Your task to perform on an android device: turn pop-ups off in chrome Image 0: 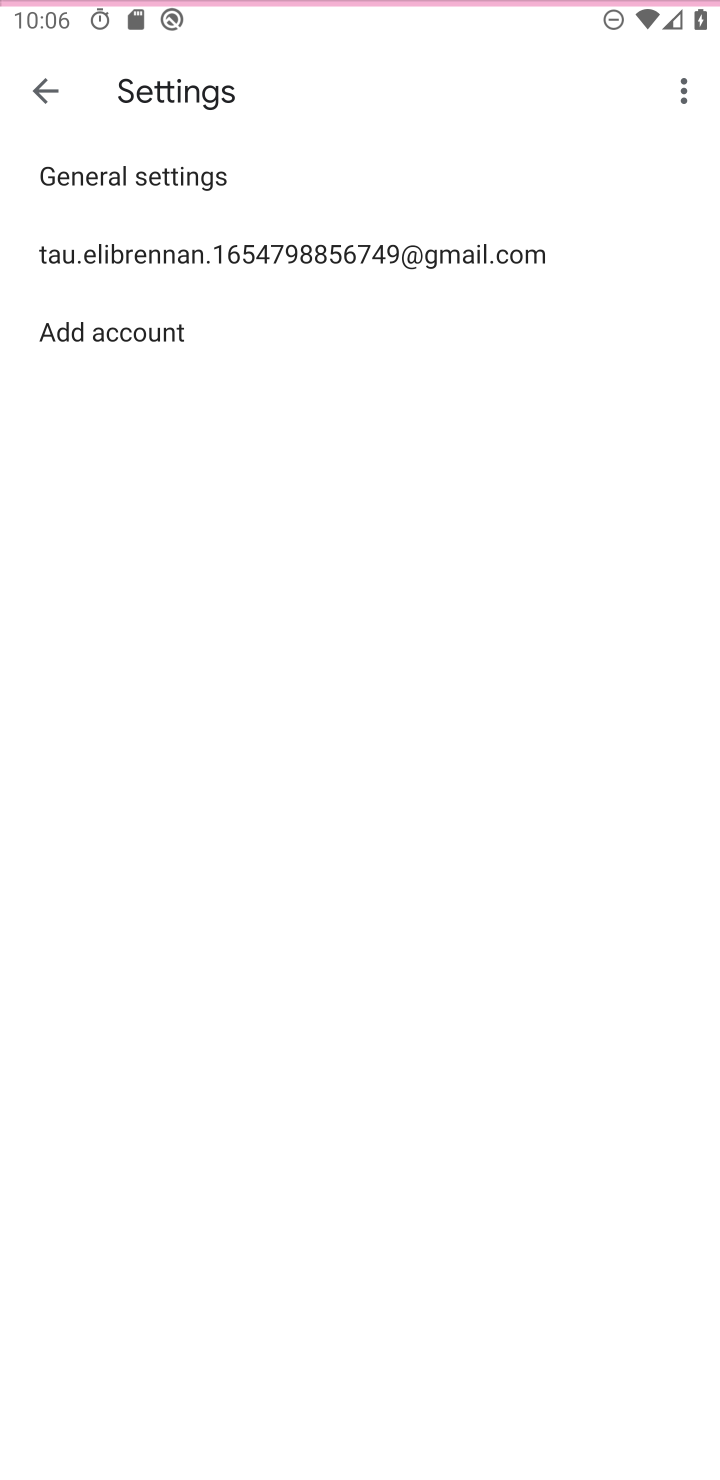
Step 0: press home button
Your task to perform on an android device: turn pop-ups off in chrome Image 1: 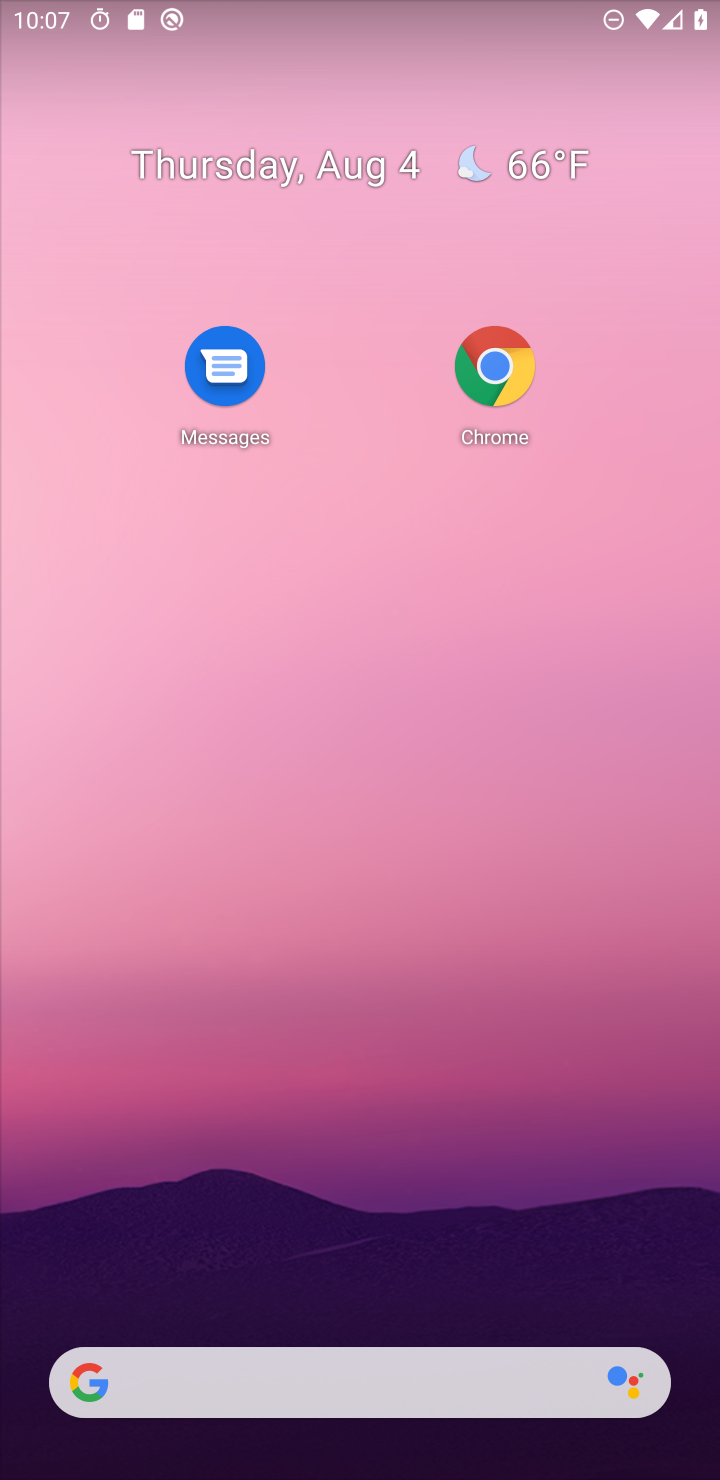
Step 1: click (491, 394)
Your task to perform on an android device: turn pop-ups off in chrome Image 2: 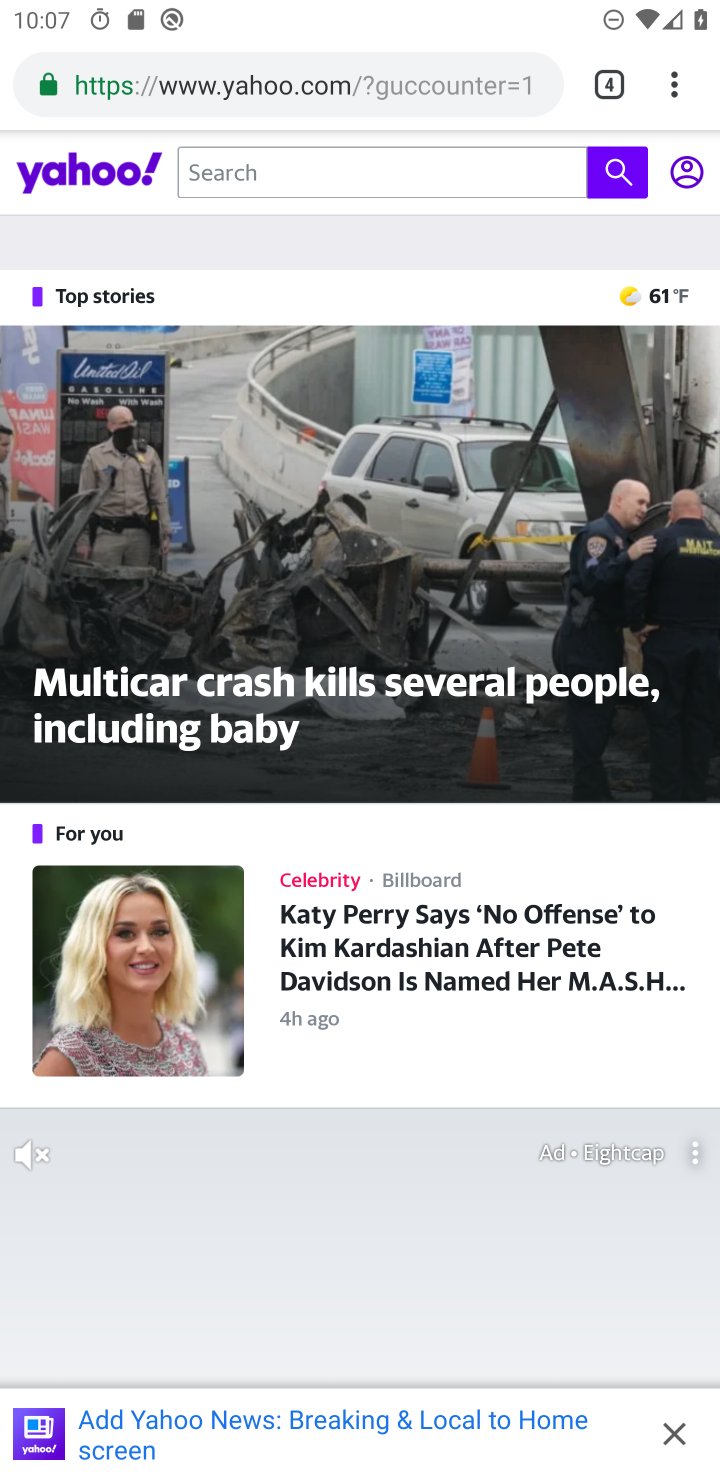
Step 2: click (680, 75)
Your task to perform on an android device: turn pop-ups off in chrome Image 3: 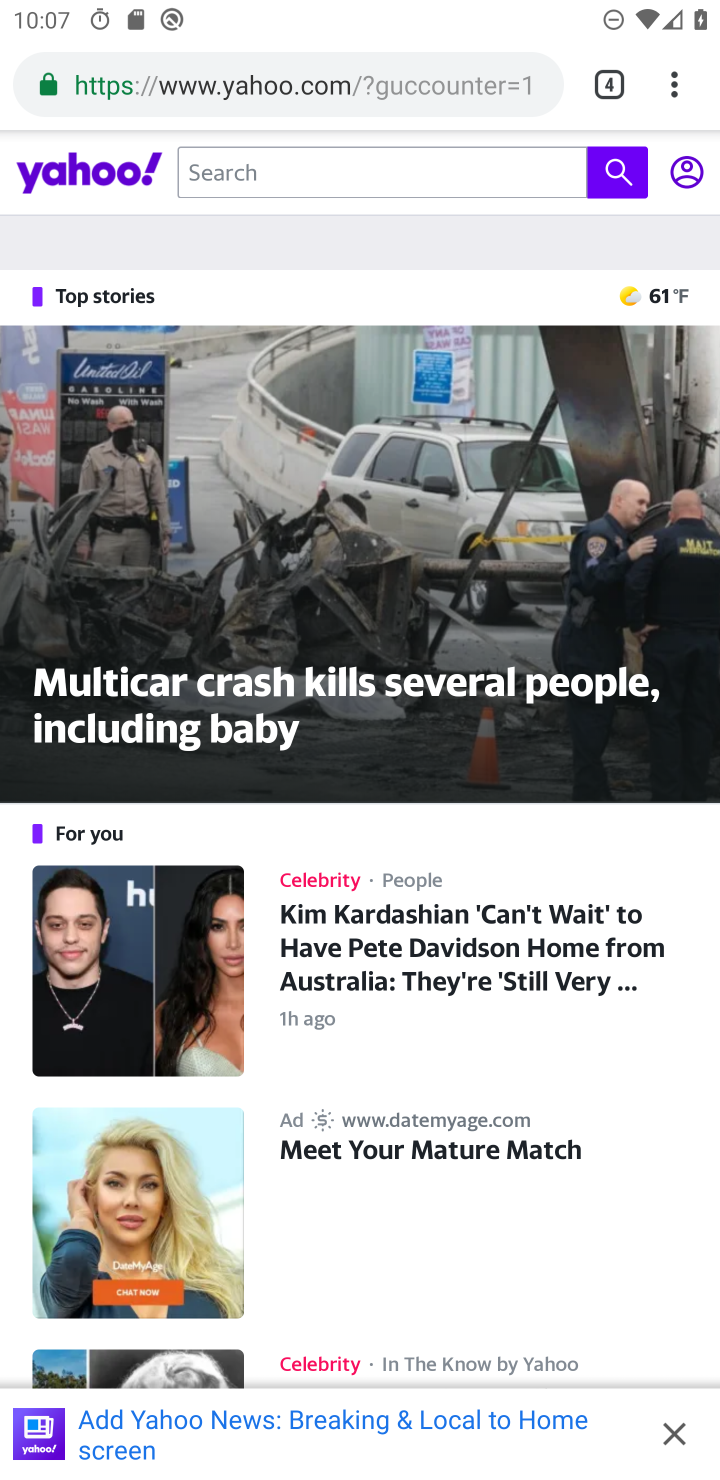
Step 3: click (675, 91)
Your task to perform on an android device: turn pop-ups off in chrome Image 4: 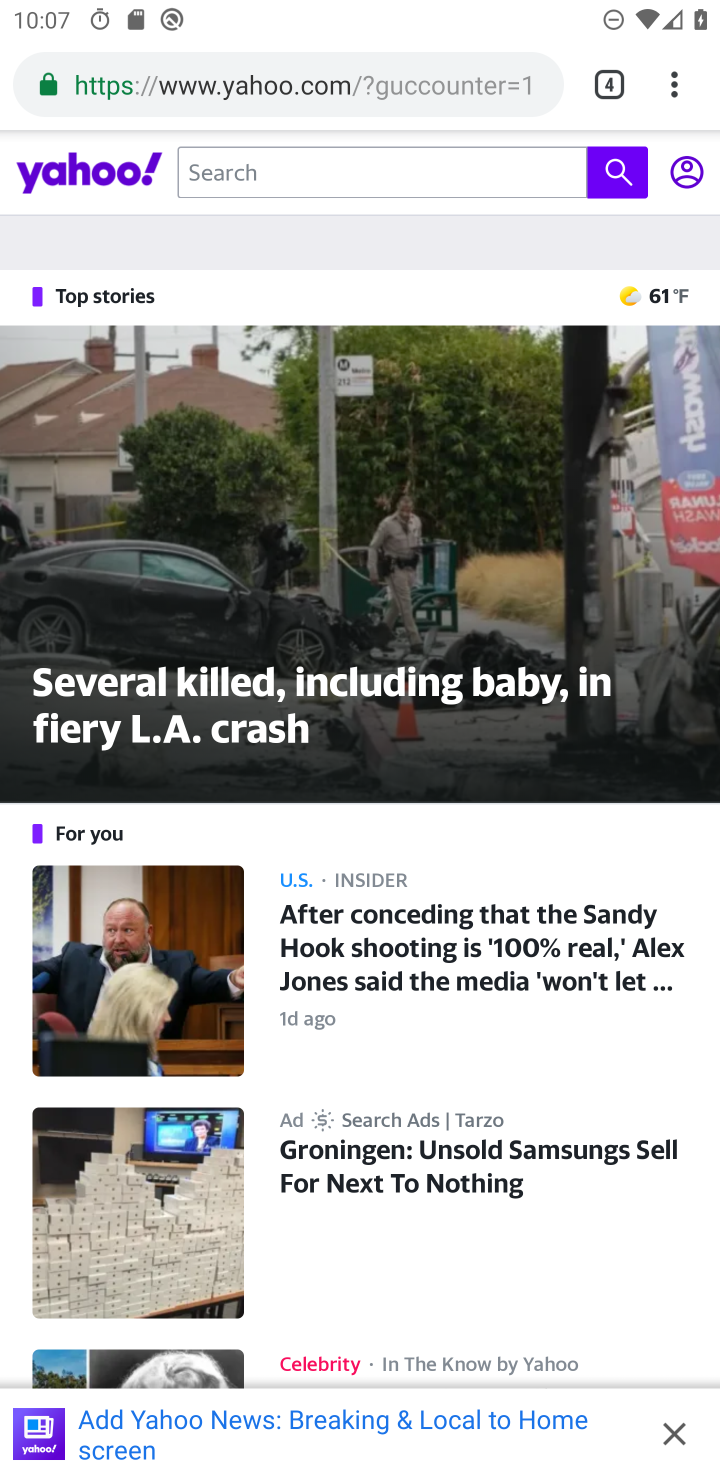
Step 4: click (681, 67)
Your task to perform on an android device: turn pop-ups off in chrome Image 5: 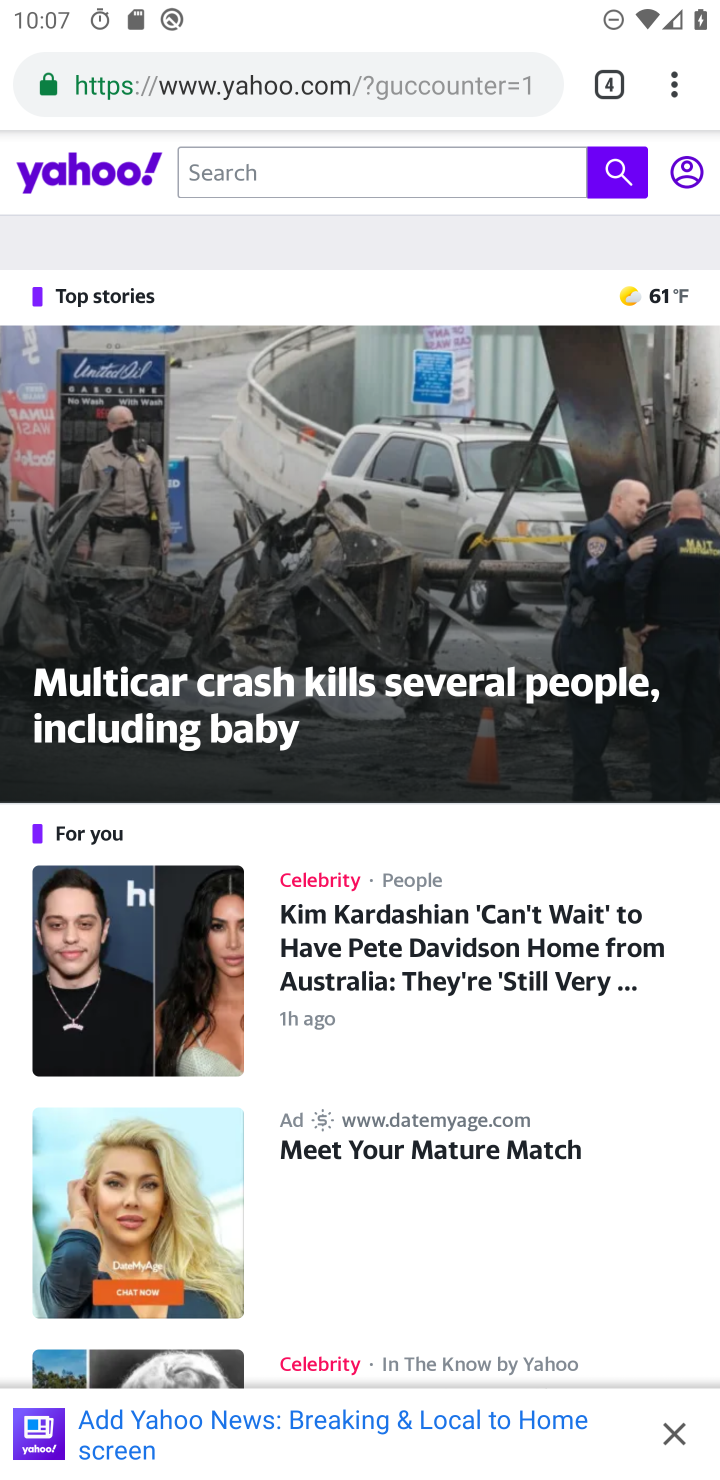
Step 5: click (670, 80)
Your task to perform on an android device: turn pop-ups off in chrome Image 6: 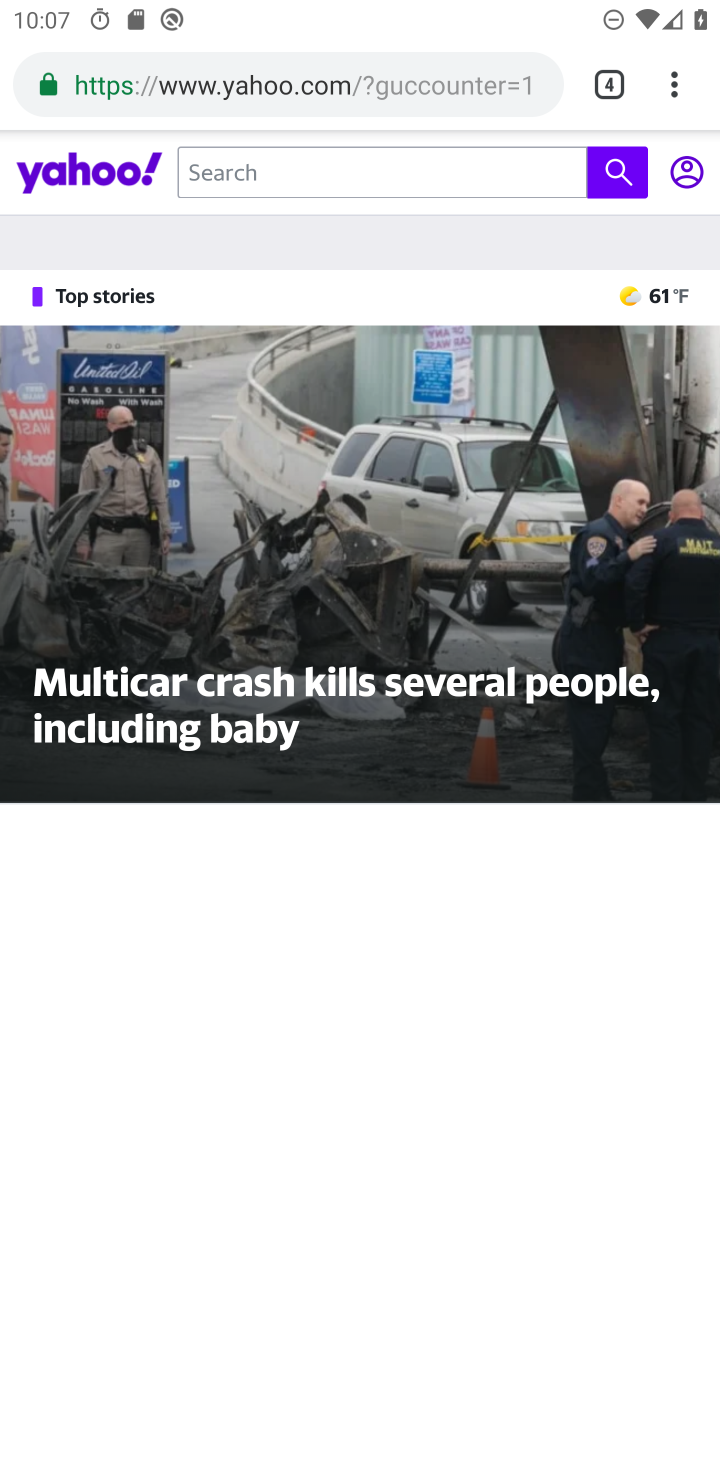
Step 6: click (666, 103)
Your task to perform on an android device: turn pop-ups off in chrome Image 7: 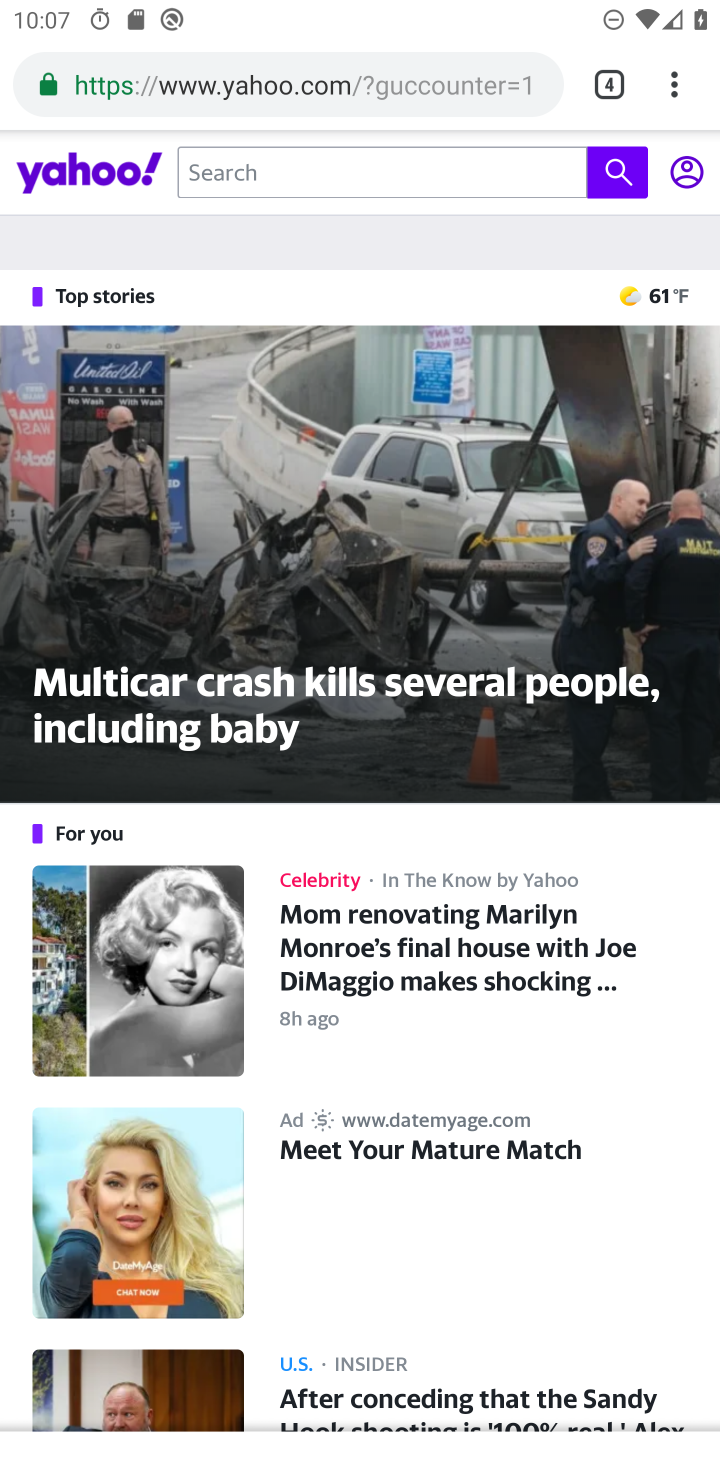
Step 7: click (666, 103)
Your task to perform on an android device: turn pop-ups off in chrome Image 8: 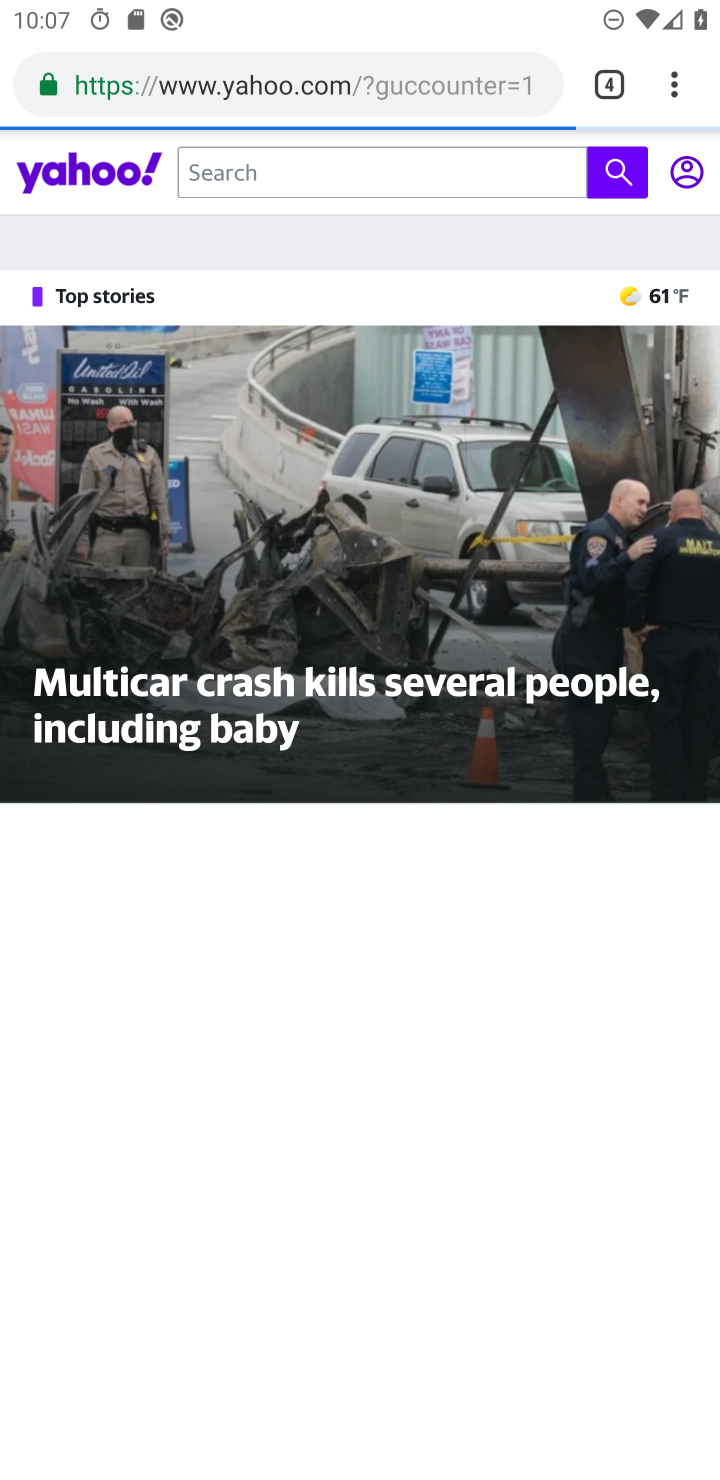
Step 8: click (669, 113)
Your task to perform on an android device: turn pop-ups off in chrome Image 9: 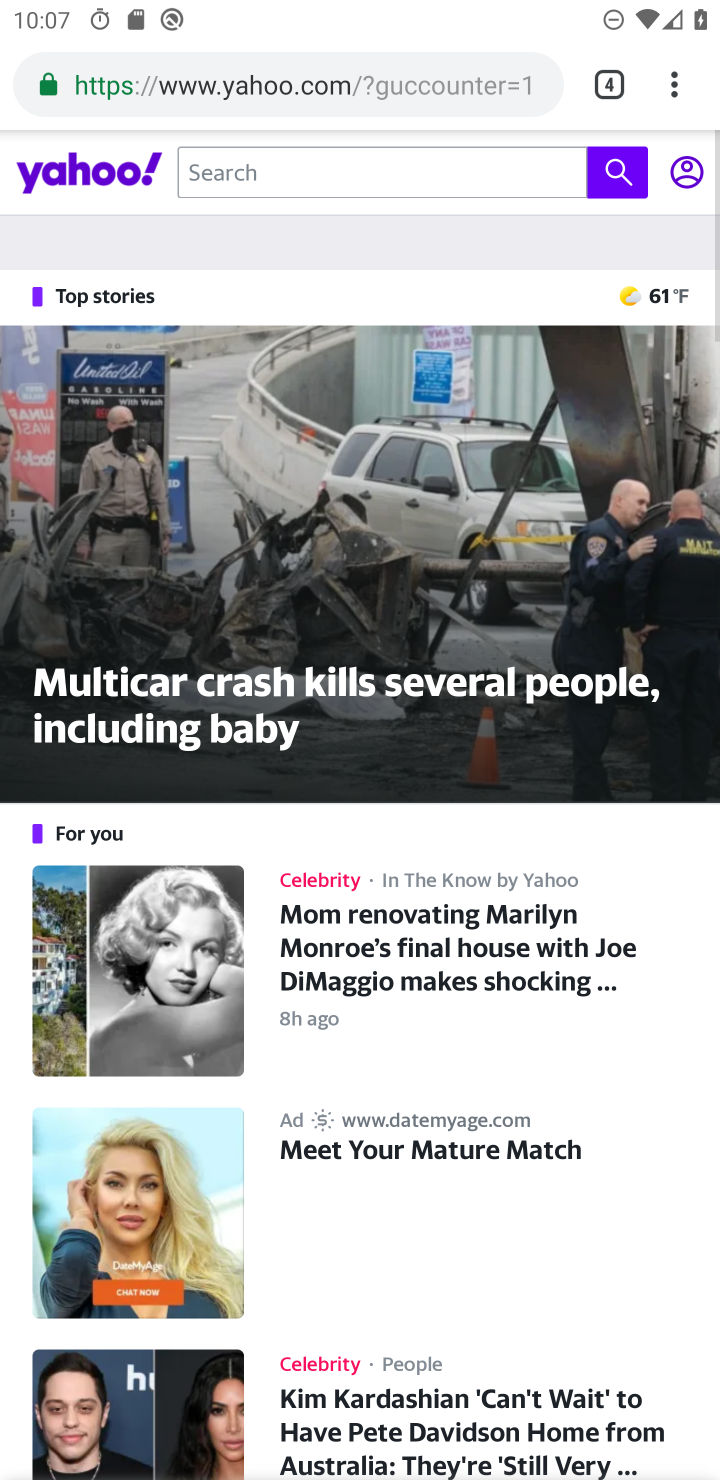
Step 9: click (678, 107)
Your task to perform on an android device: turn pop-ups off in chrome Image 10: 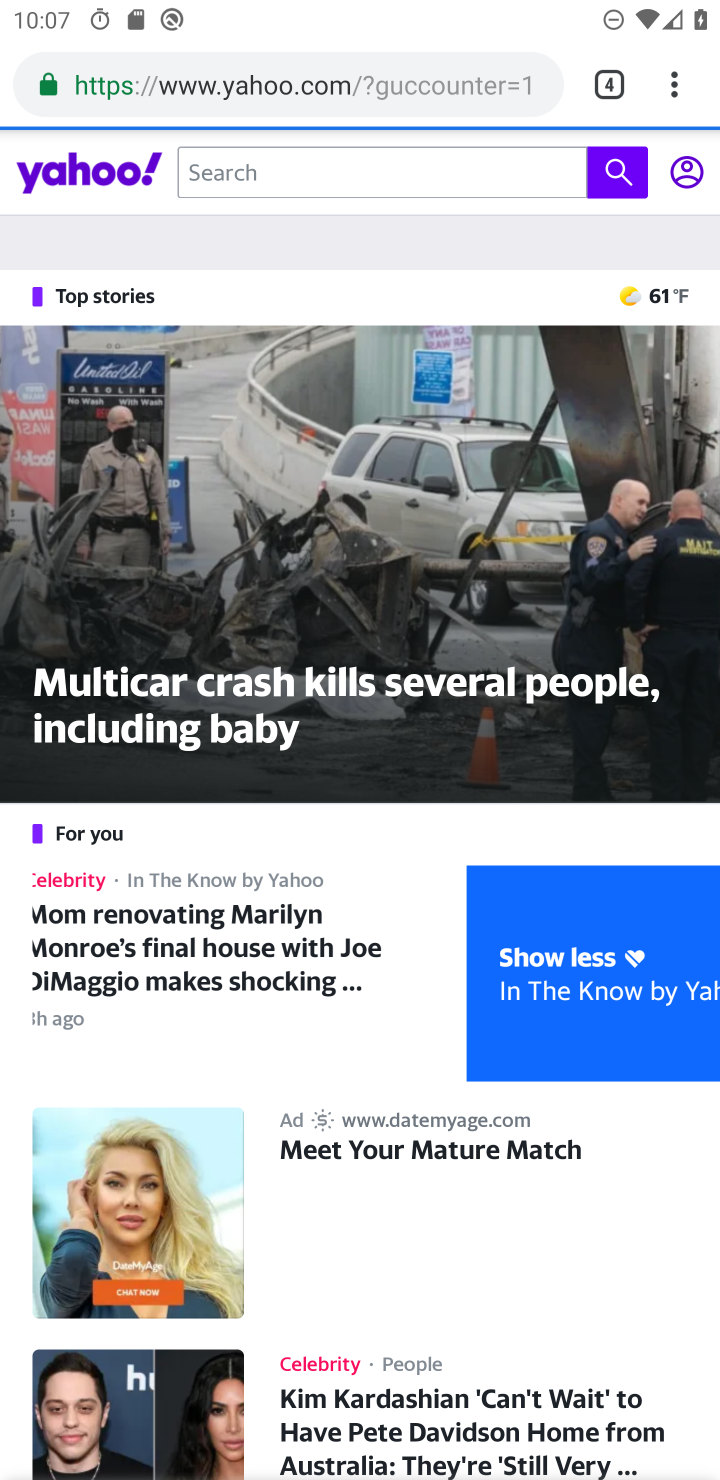
Step 10: click (658, 110)
Your task to perform on an android device: turn pop-ups off in chrome Image 11: 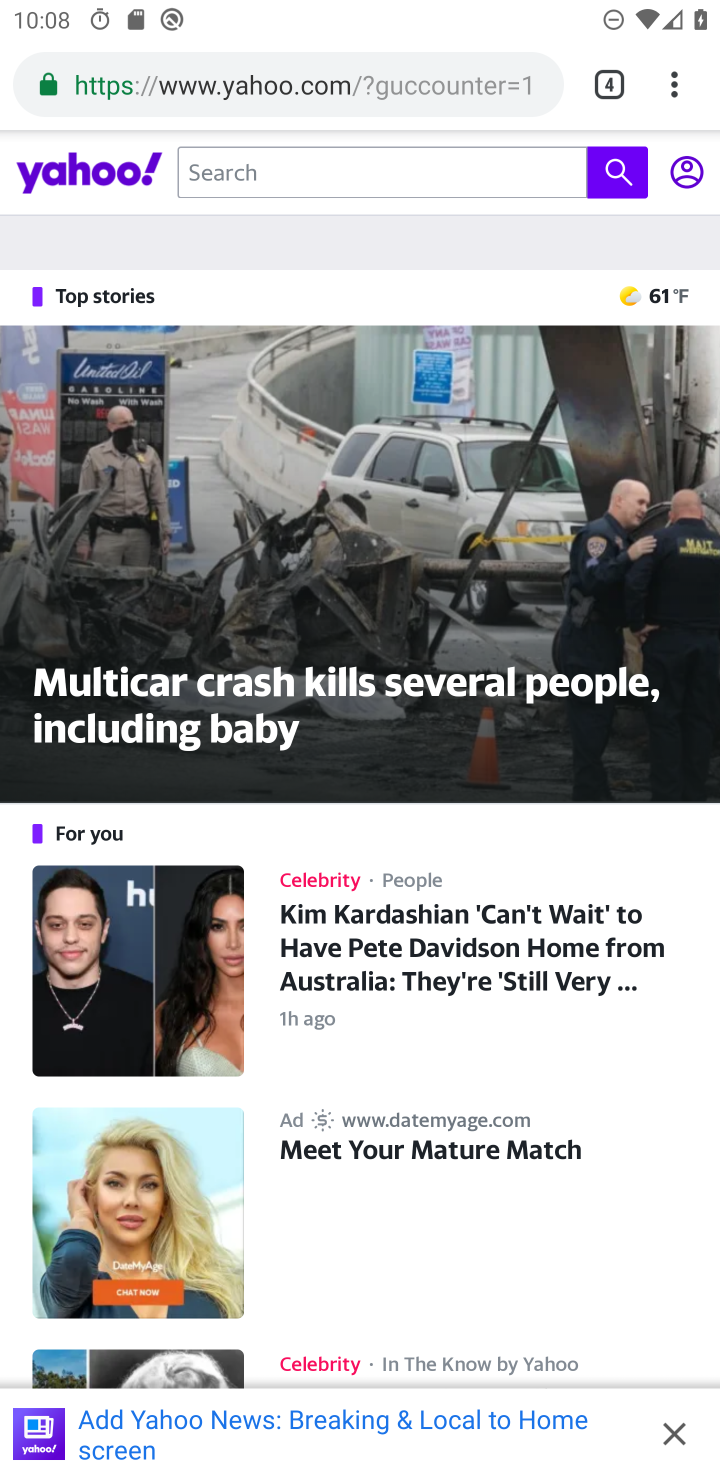
Step 11: click (680, 89)
Your task to perform on an android device: turn pop-ups off in chrome Image 12: 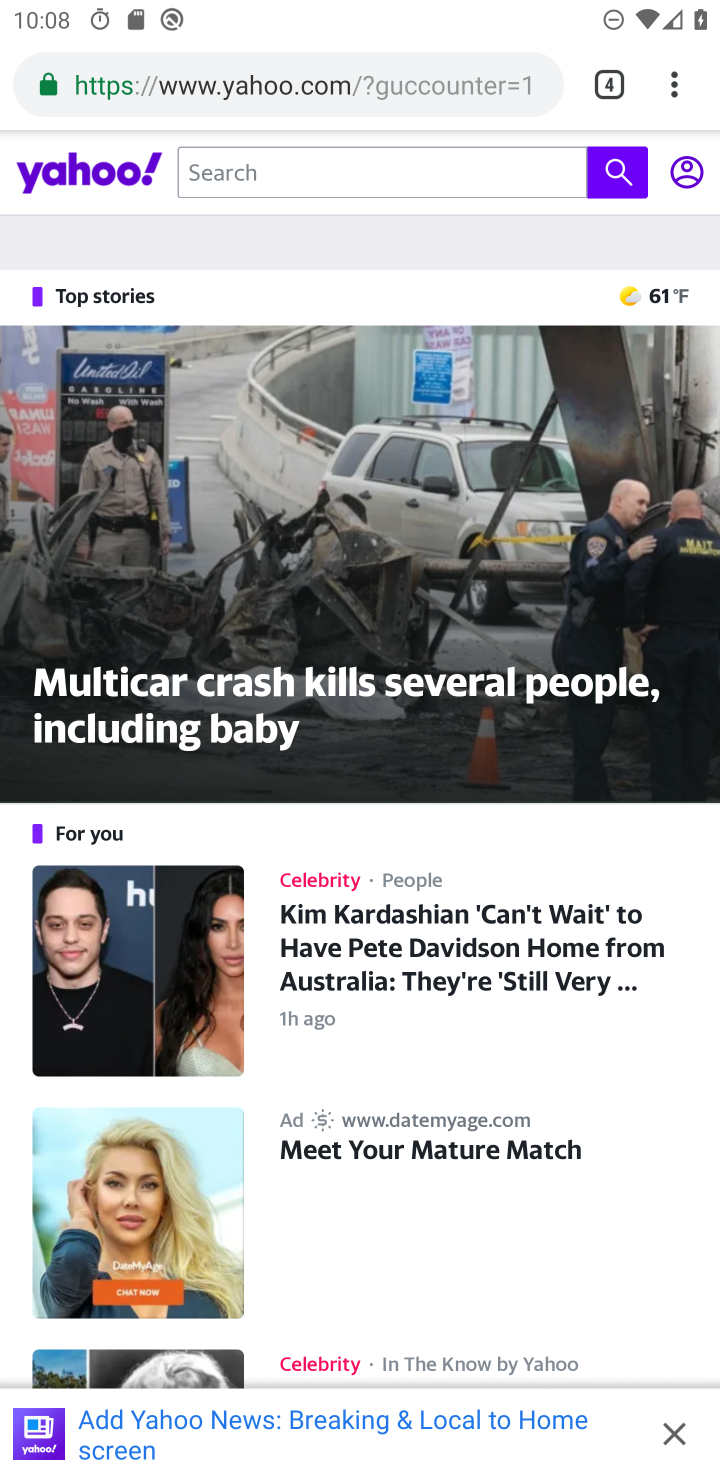
Step 12: click (673, 77)
Your task to perform on an android device: turn pop-ups off in chrome Image 13: 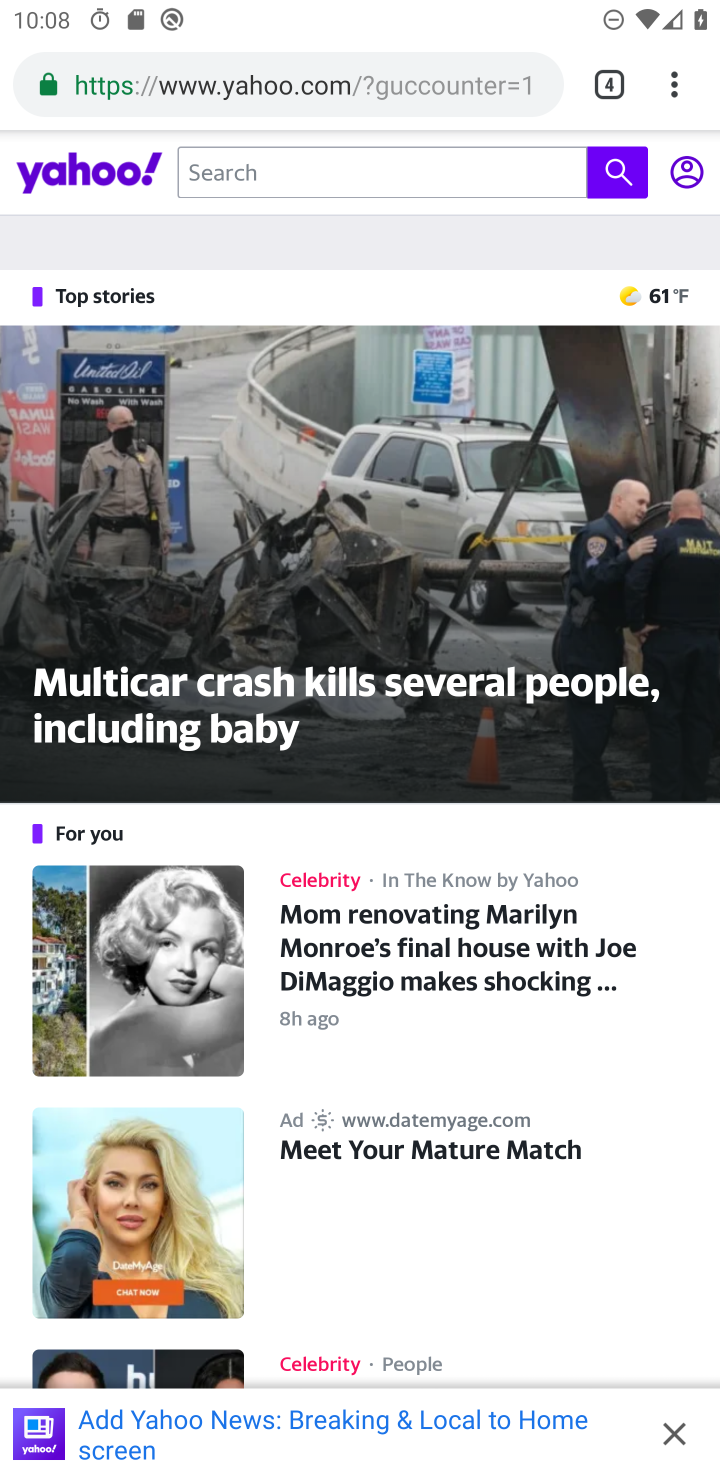
Step 13: click (677, 81)
Your task to perform on an android device: turn pop-ups off in chrome Image 14: 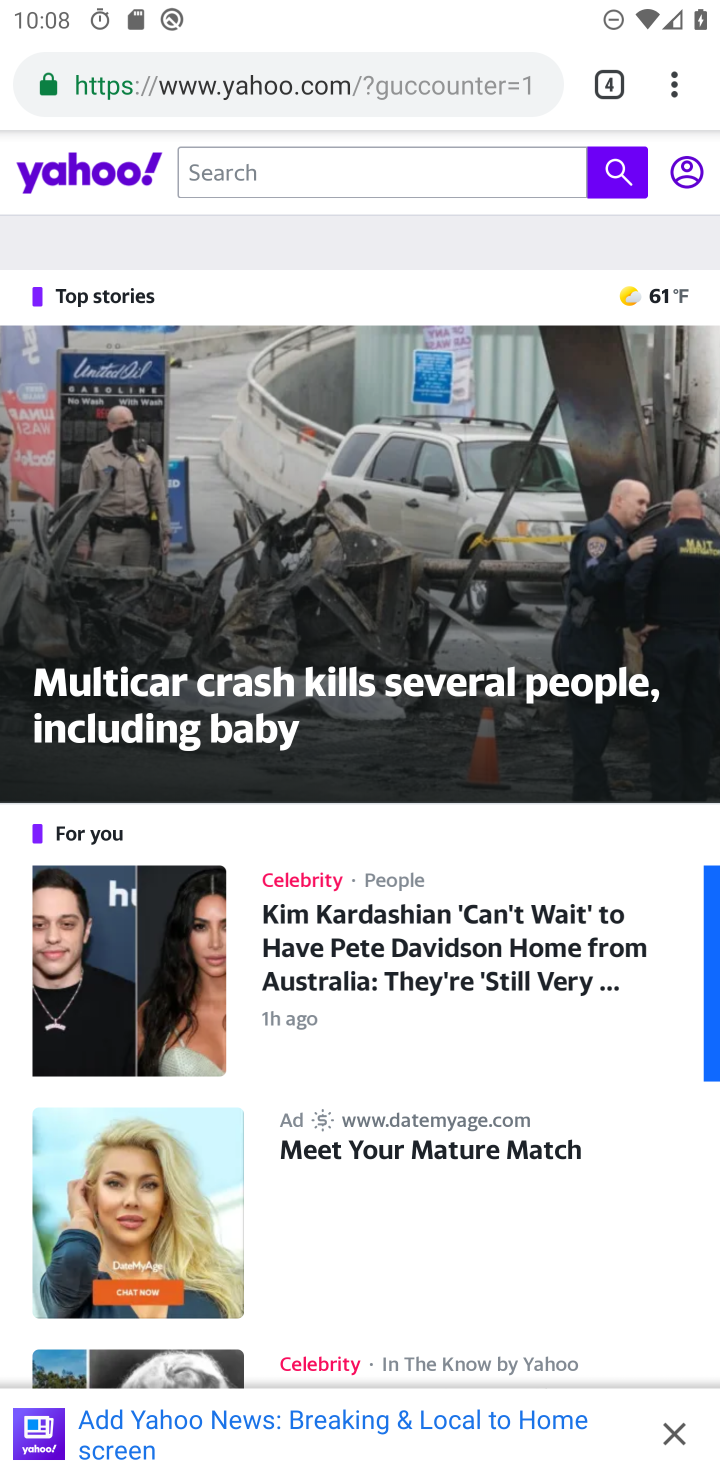
Step 14: click (662, 84)
Your task to perform on an android device: turn pop-ups off in chrome Image 15: 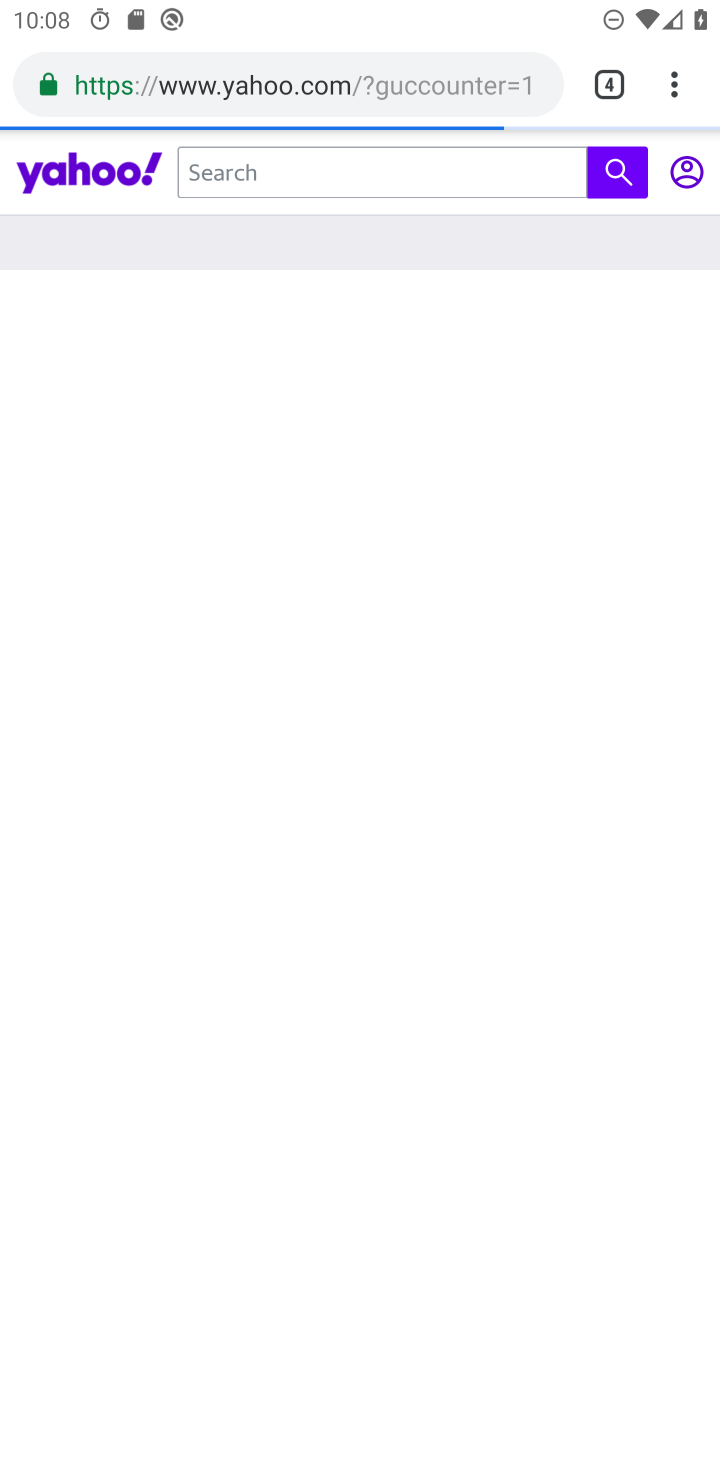
Step 15: click (677, 97)
Your task to perform on an android device: turn pop-ups off in chrome Image 16: 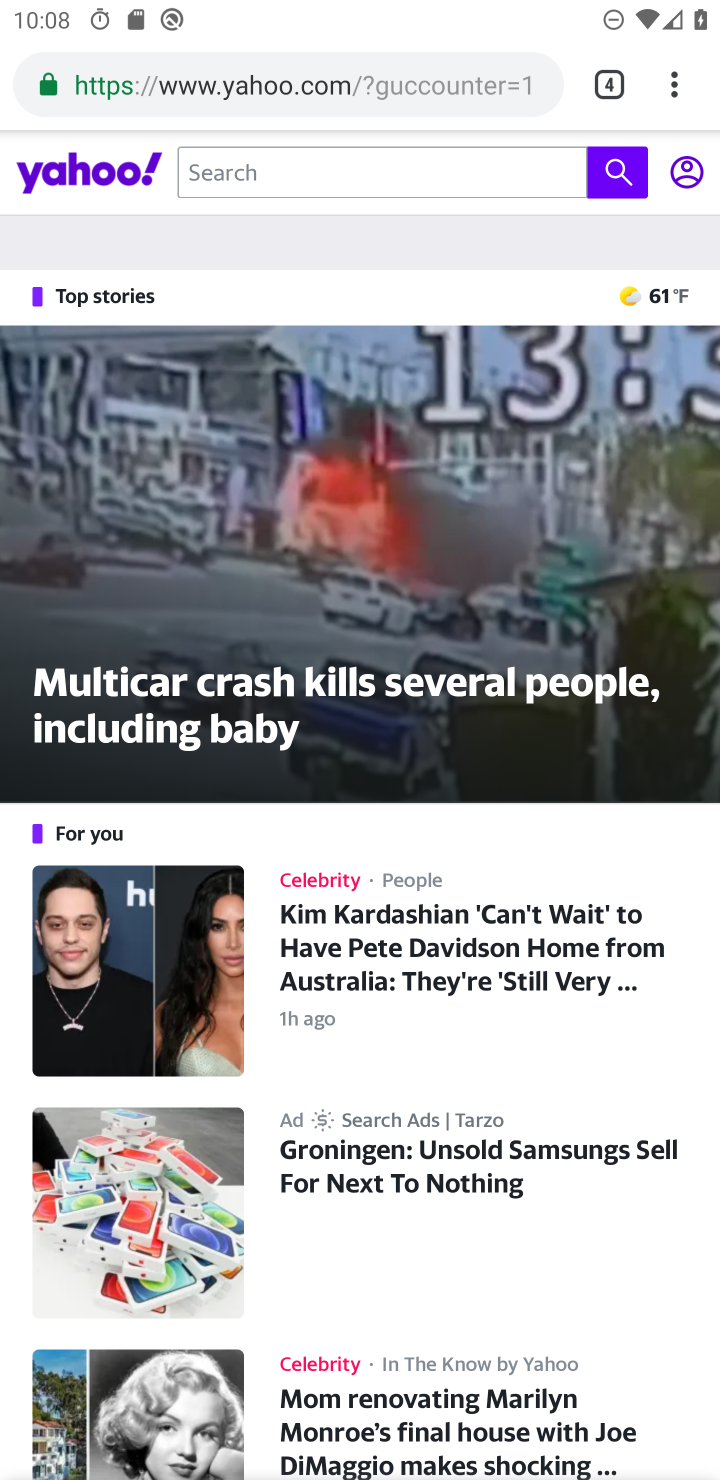
Step 16: click (679, 81)
Your task to perform on an android device: turn pop-ups off in chrome Image 17: 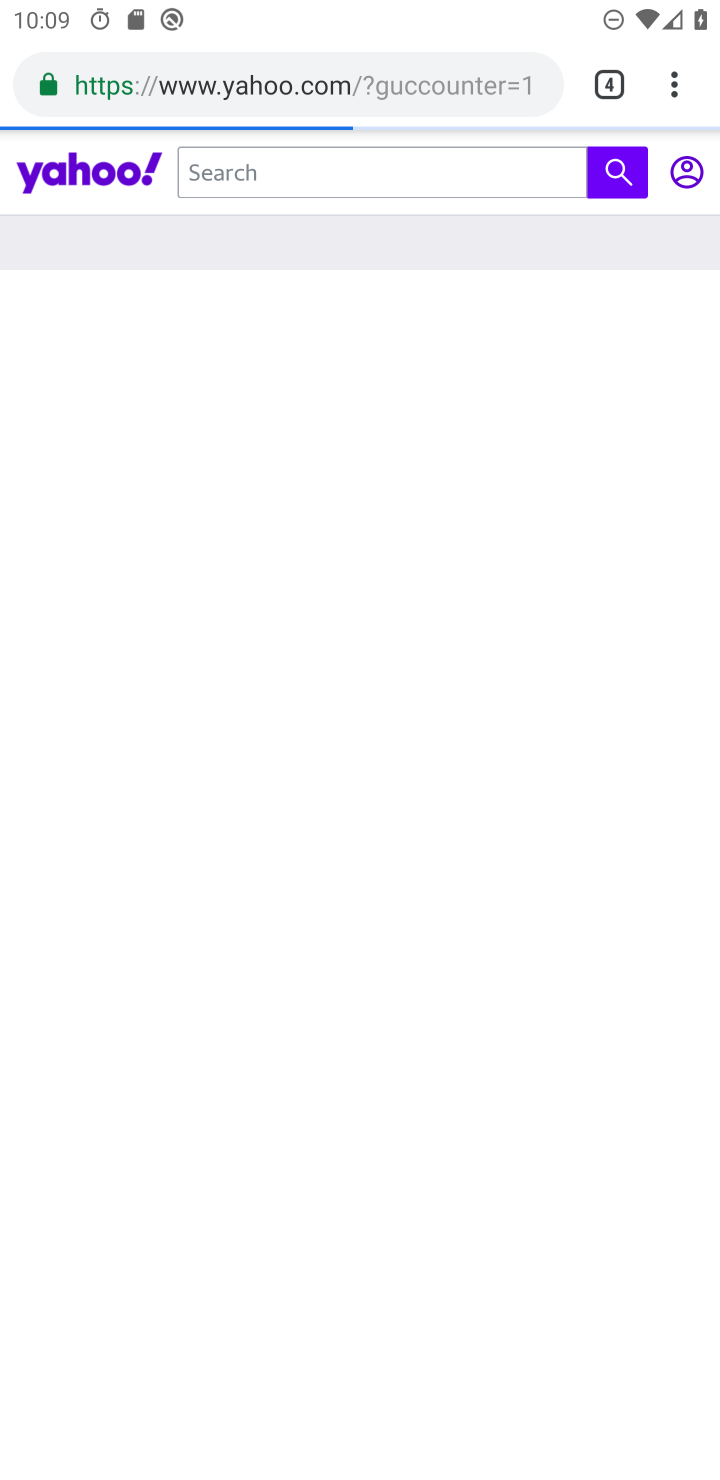
Step 17: click (677, 66)
Your task to perform on an android device: turn pop-ups off in chrome Image 18: 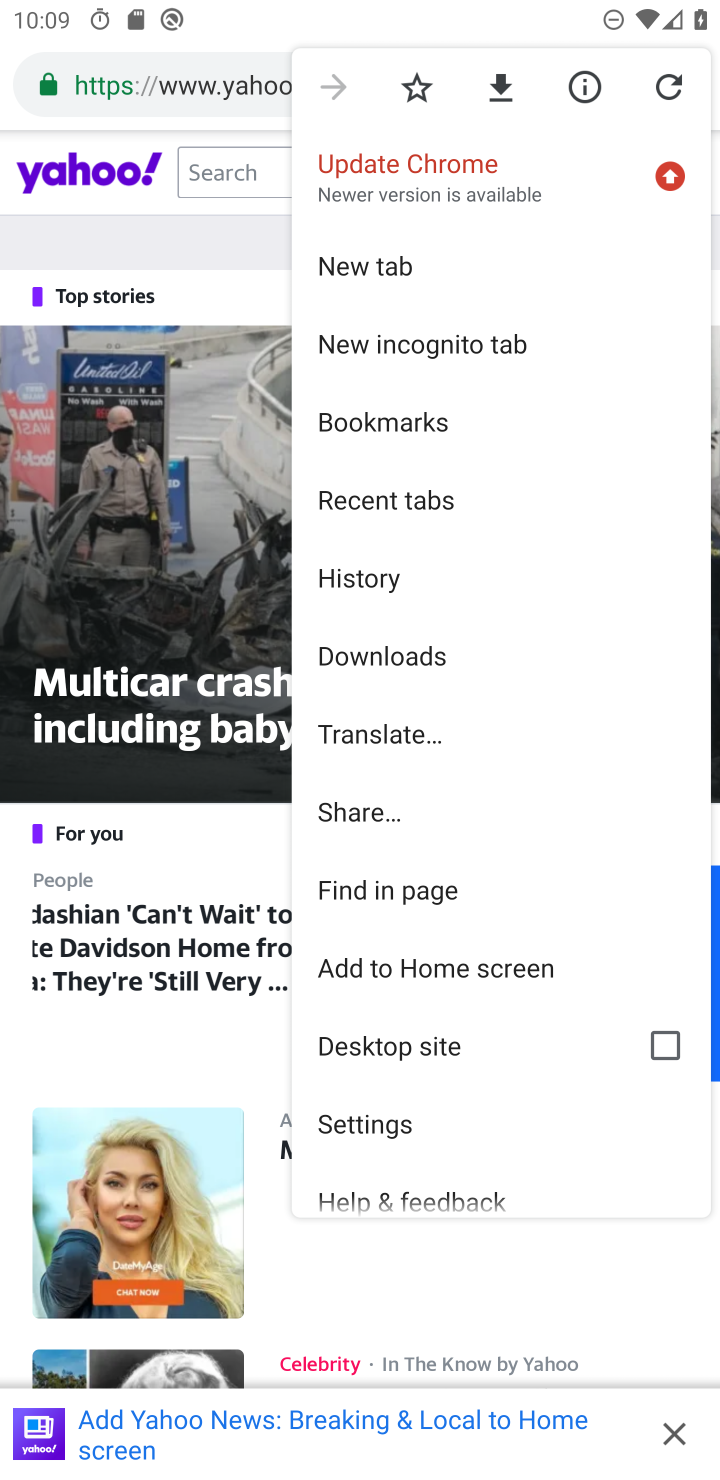
Step 18: click (361, 1118)
Your task to perform on an android device: turn pop-ups off in chrome Image 19: 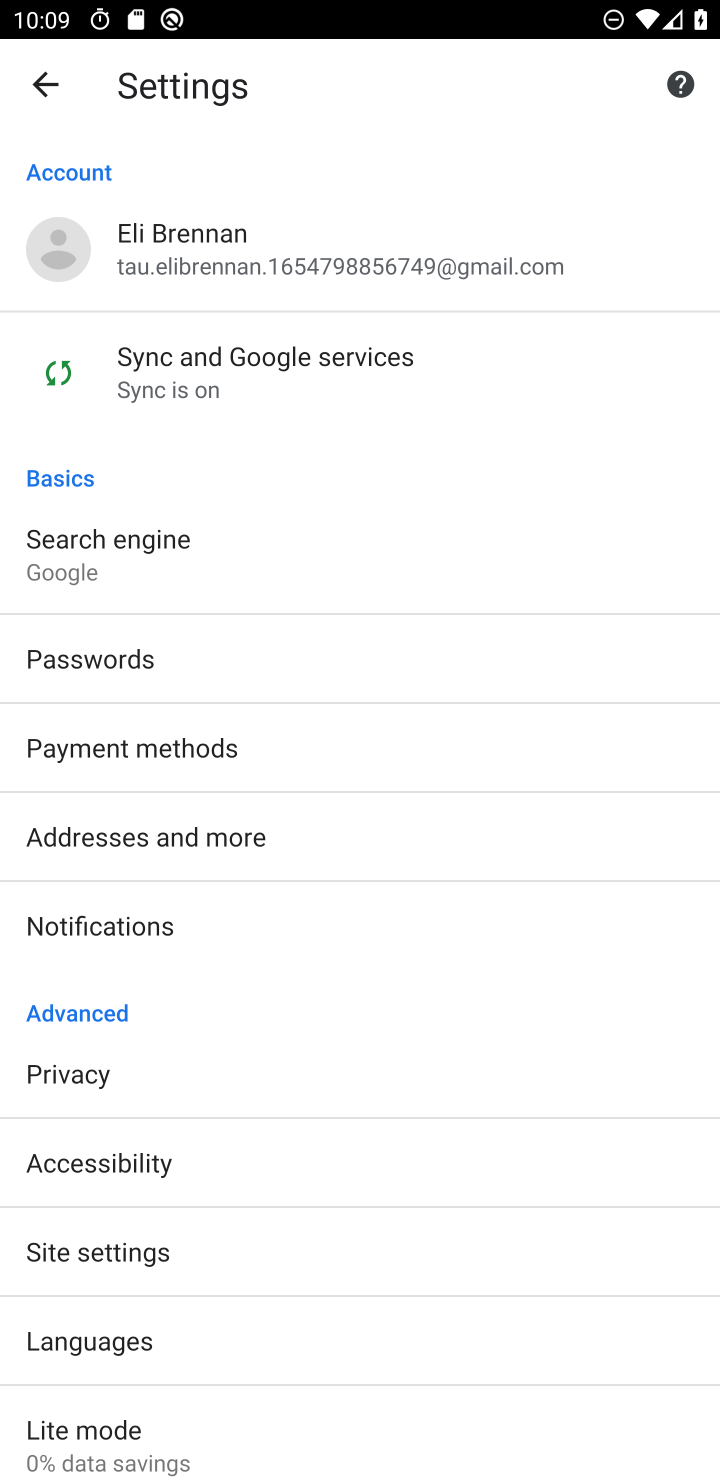
Step 19: click (148, 1260)
Your task to perform on an android device: turn pop-ups off in chrome Image 20: 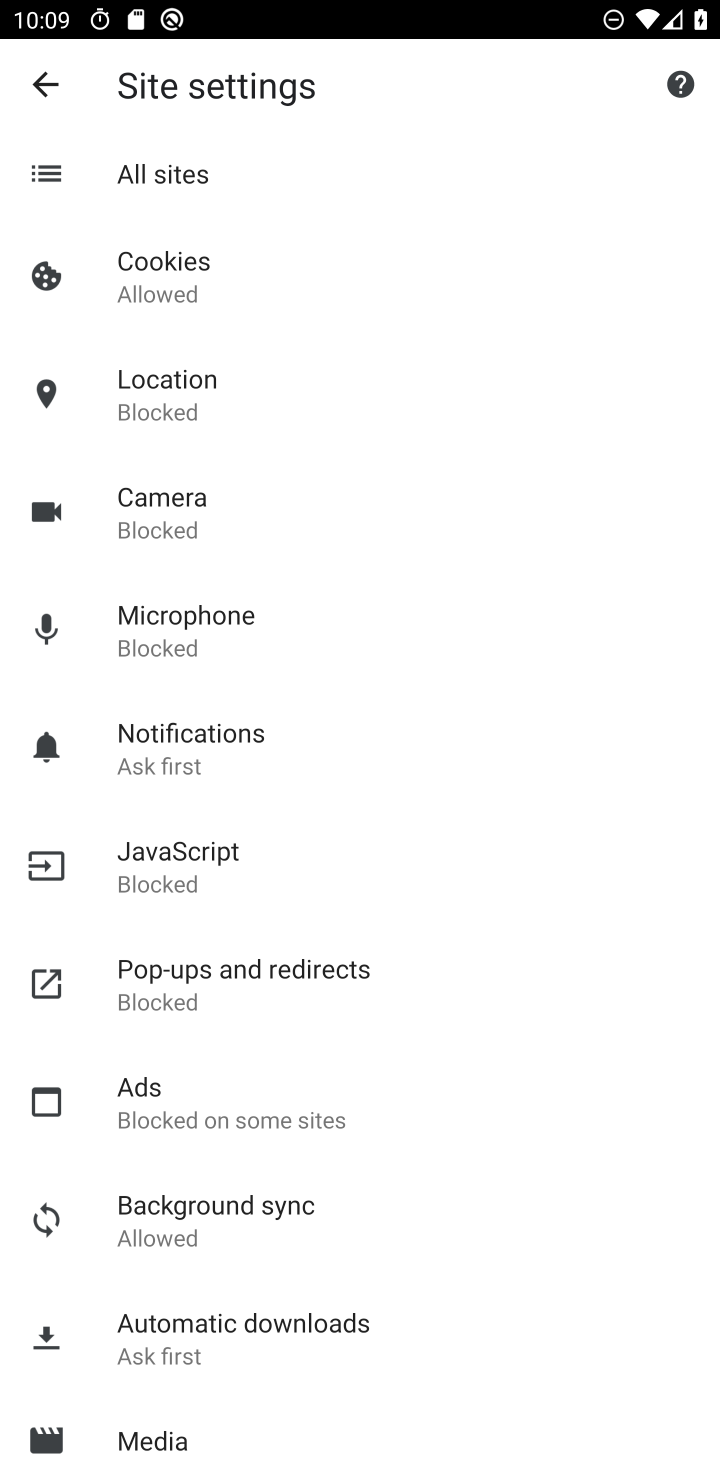
Step 20: click (218, 984)
Your task to perform on an android device: turn pop-ups off in chrome Image 21: 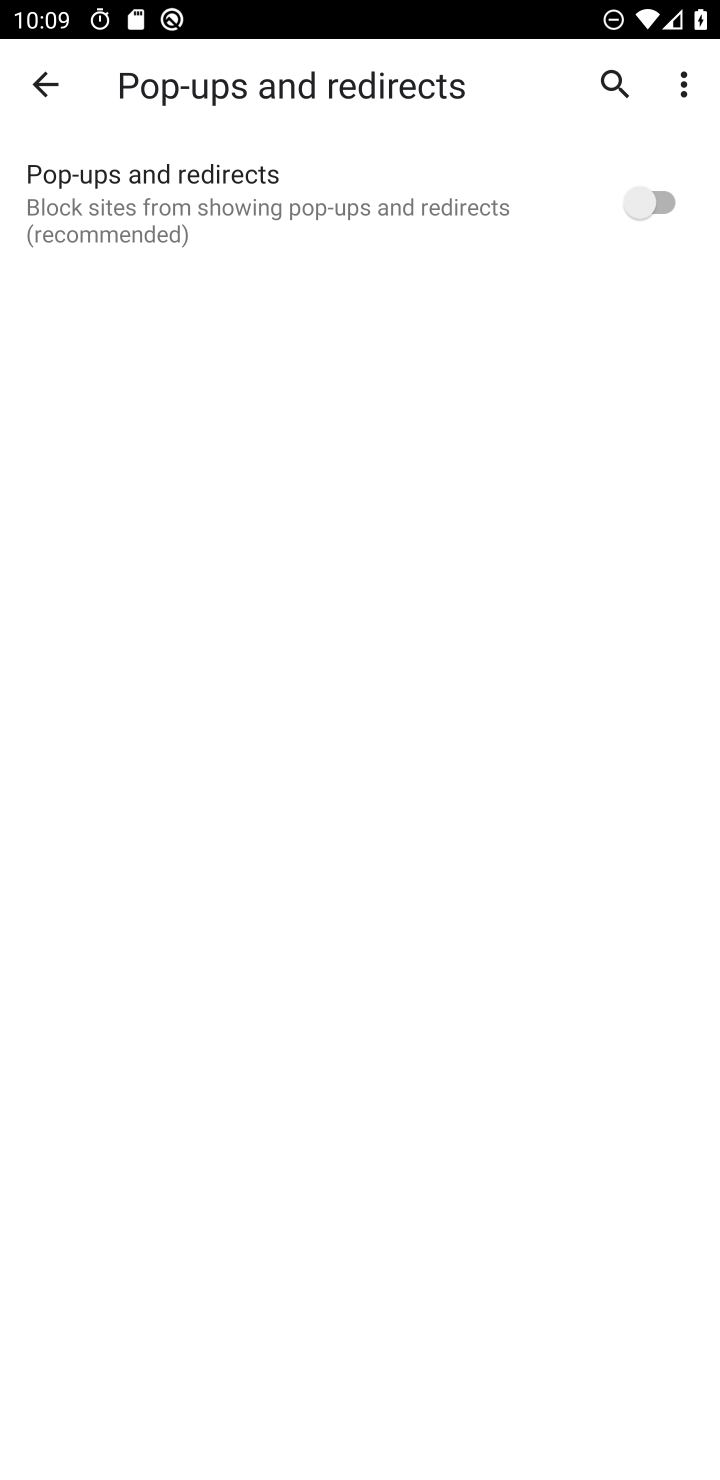
Step 21: click (641, 202)
Your task to perform on an android device: turn pop-ups off in chrome Image 22: 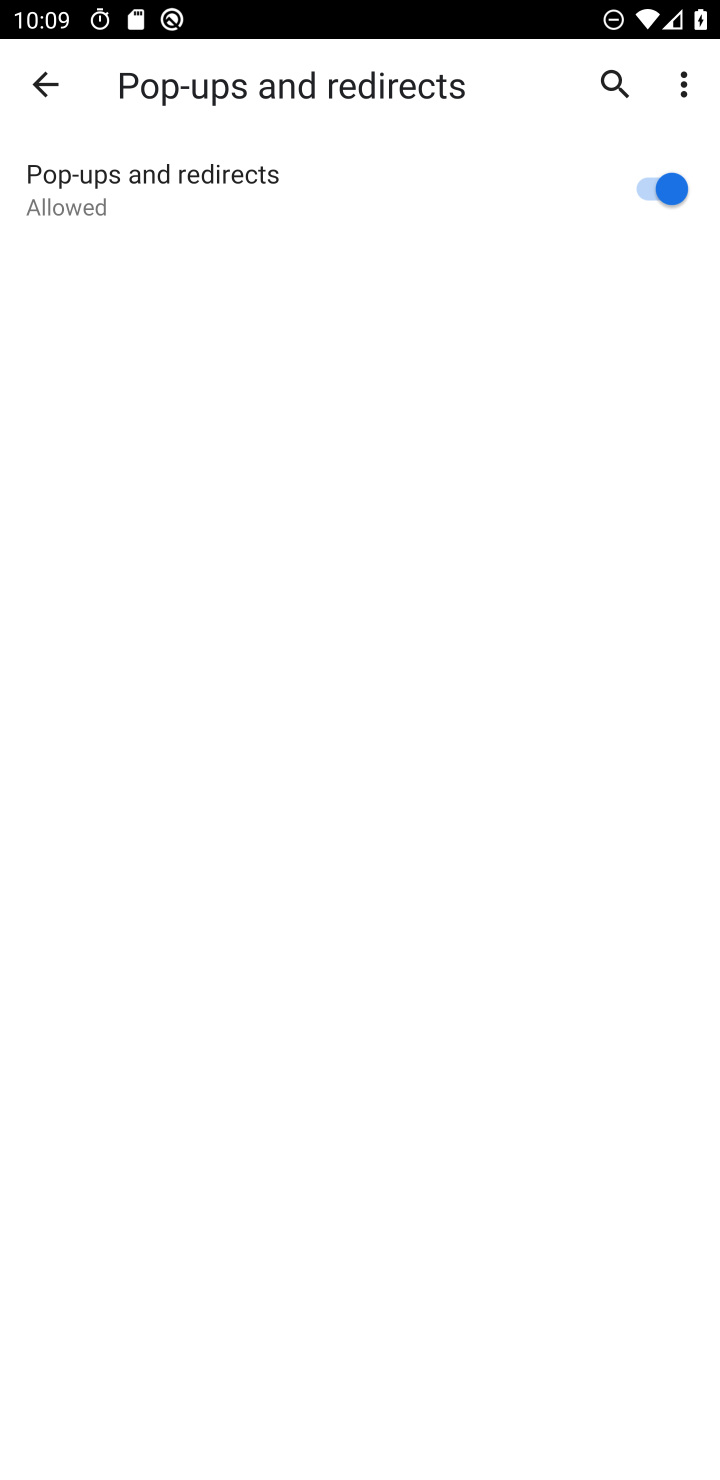
Step 22: click (641, 202)
Your task to perform on an android device: turn pop-ups off in chrome Image 23: 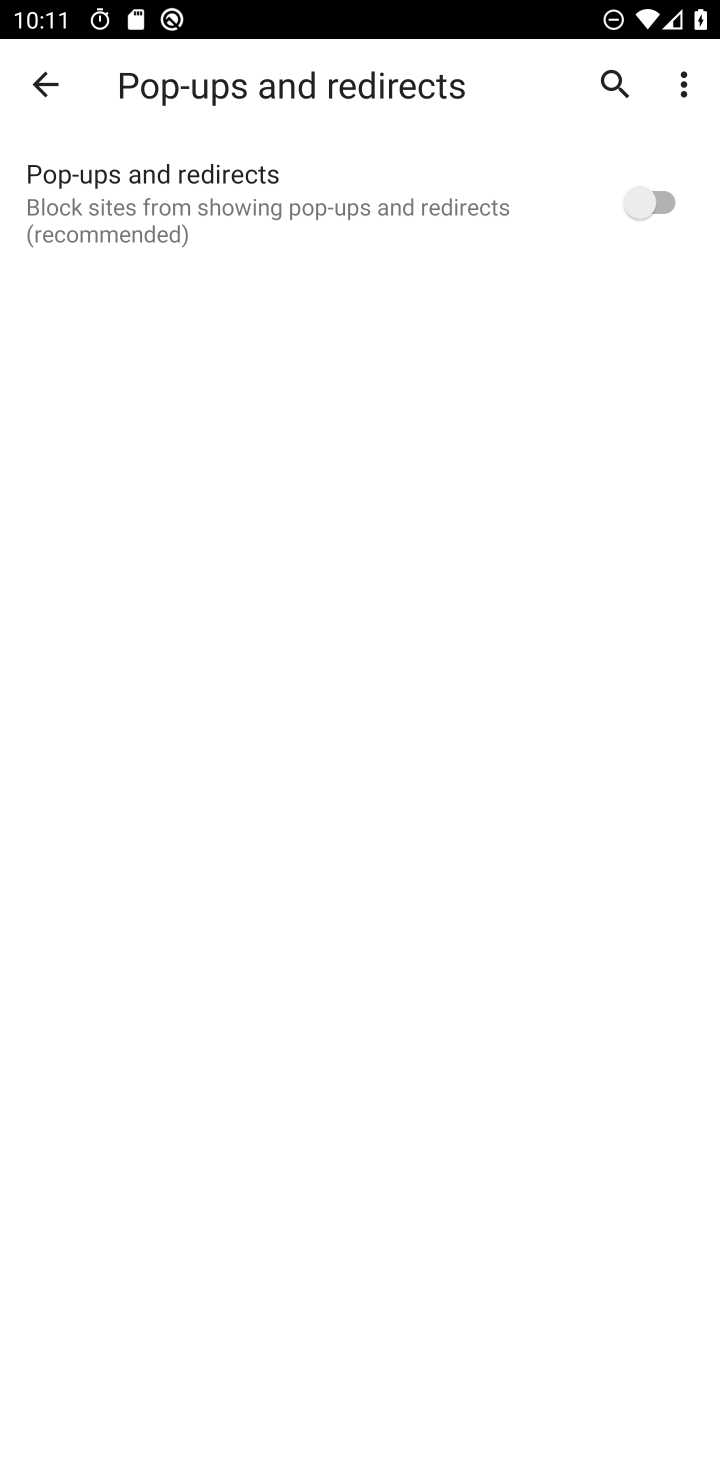
Step 23: task complete